Your task to perform on an android device: Do I have any events today? Image 0: 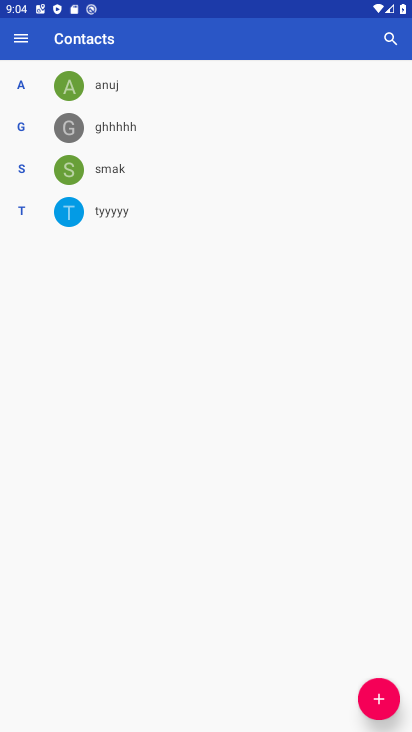
Step 0: press home button
Your task to perform on an android device: Do I have any events today? Image 1: 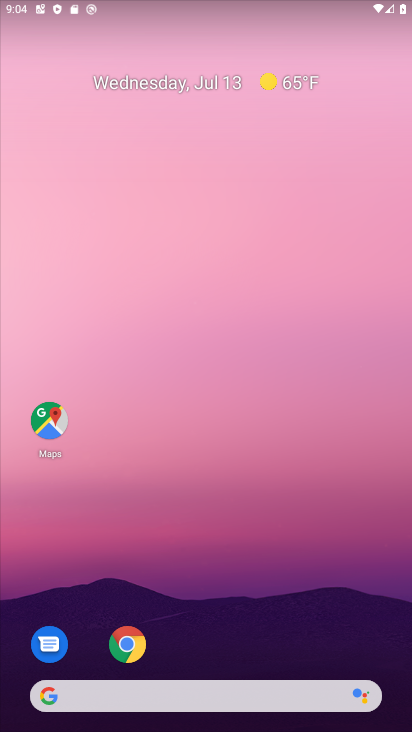
Step 1: drag from (325, 569) to (257, 69)
Your task to perform on an android device: Do I have any events today? Image 2: 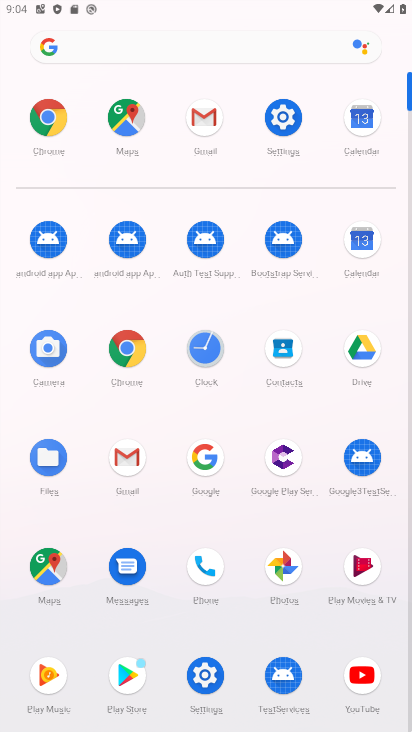
Step 2: click (350, 240)
Your task to perform on an android device: Do I have any events today? Image 3: 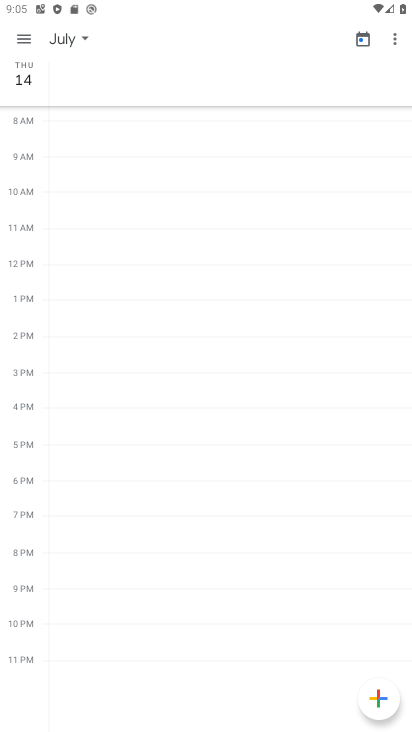
Step 3: click (64, 26)
Your task to perform on an android device: Do I have any events today? Image 4: 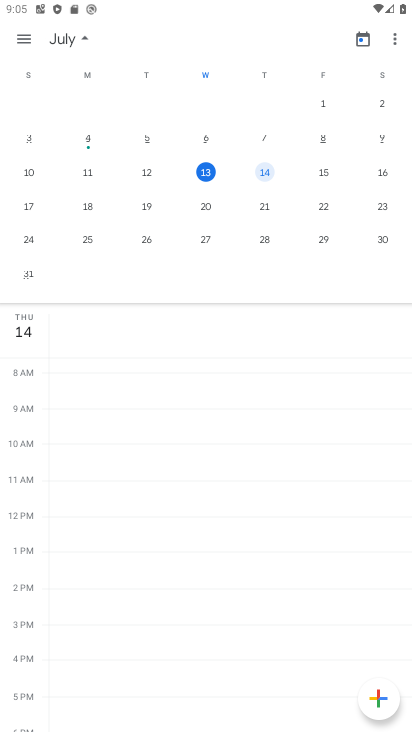
Step 4: task complete